Your task to perform on an android device: set the stopwatch Image 0: 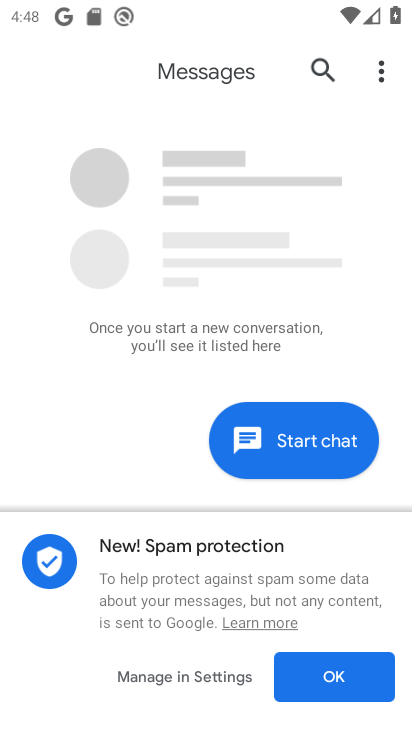
Step 0: drag from (212, 722) to (220, 257)
Your task to perform on an android device: set the stopwatch Image 1: 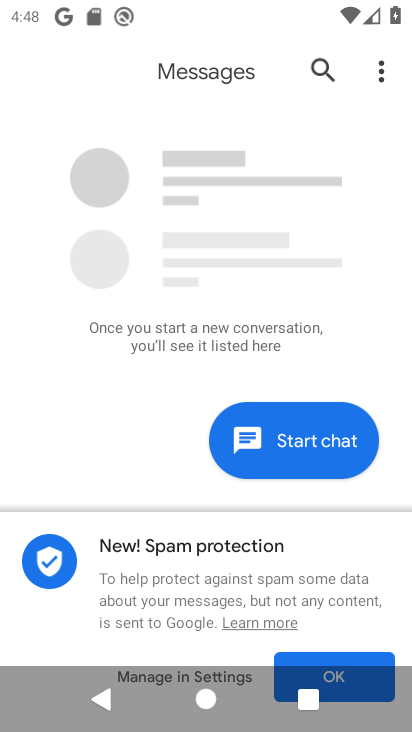
Step 1: press home button
Your task to perform on an android device: set the stopwatch Image 2: 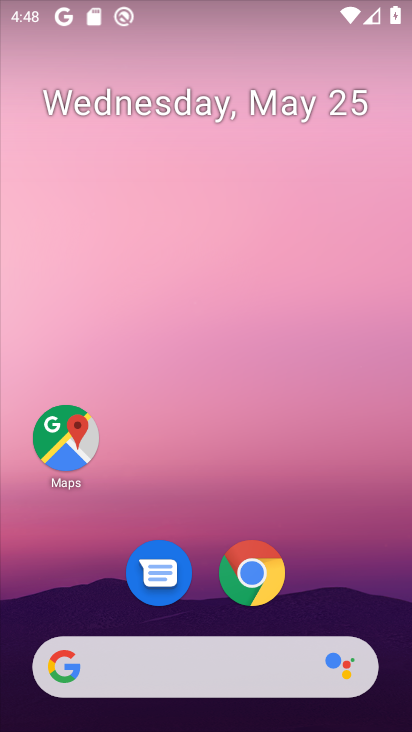
Step 2: drag from (196, 708) to (197, 68)
Your task to perform on an android device: set the stopwatch Image 3: 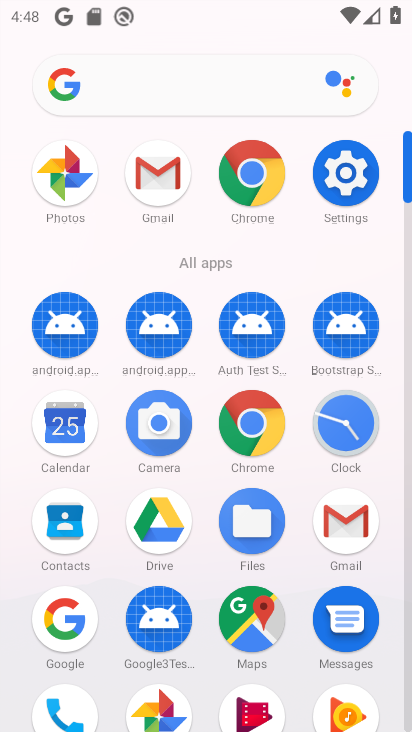
Step 3: click (344, 419)
Your task to perform on an android device: set the stopwatch Image 4: 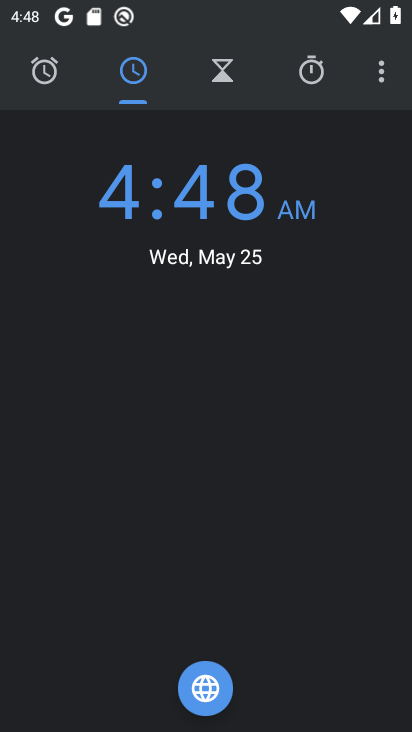
Step 4: click (313, 69)
Your task to perform on an android device: set the stopwatch Image 5: 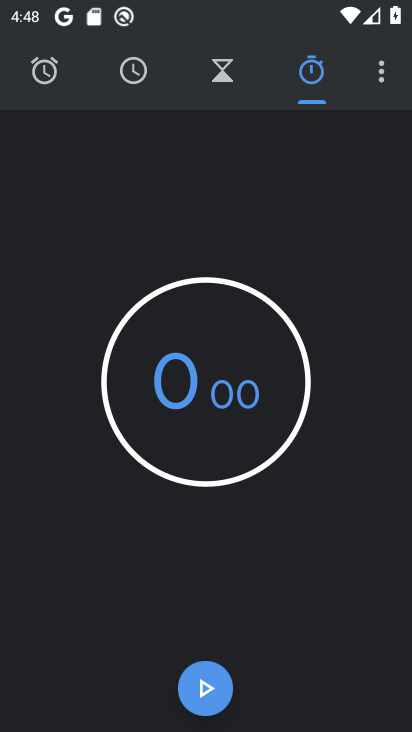
Step 5: click (212, 396)
Your task to perform on an android device: set the stopwatch Image 6: 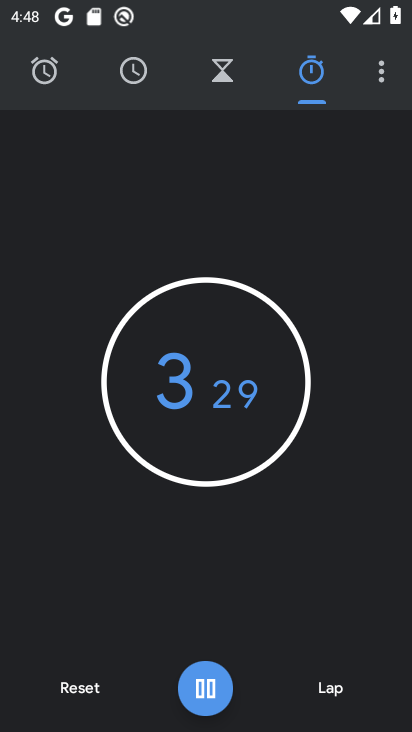
Step 6: type "8765"
Your task to perform on an android device: set the stopwatch Image 7: 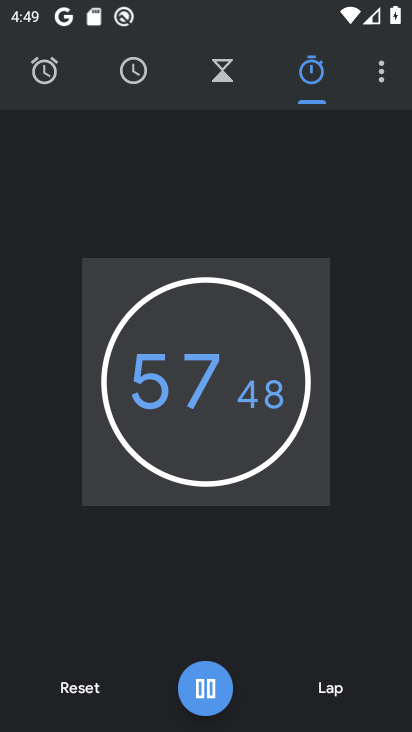
Step 7: task complete